Your task to perform on an android device: Open Google Chrome and click the shortcut for Amazon.com Image 0: 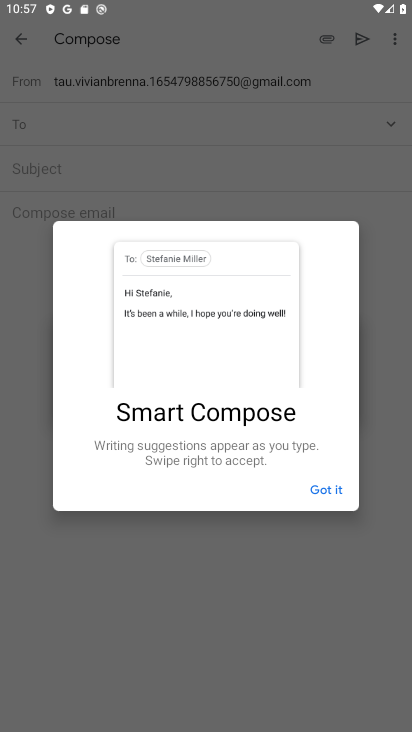
Step 0: press home button
Your task to perform on an android device: Open Google Chrome and click the shortcut for Amazon.com Image 1: 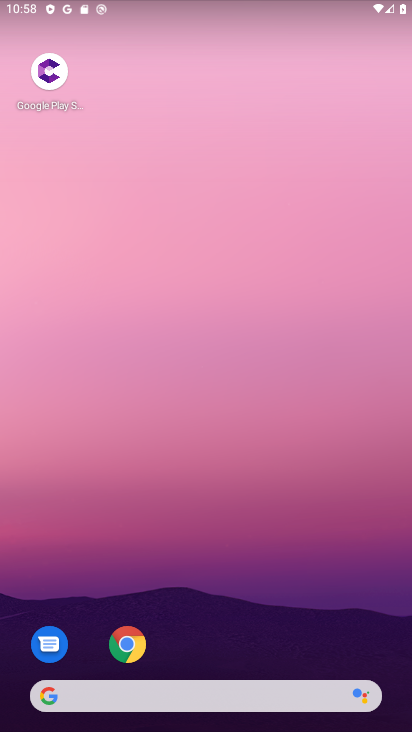
Step 1: drag from (261, 638) to (247, 221)
Your task to perform on an android device: Open Google Chrome and click the shortcut for Amazon.com Image 2: 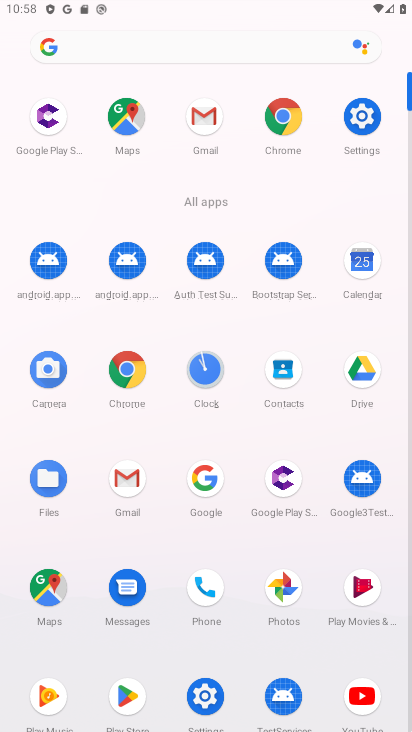
Step 2: click (282, 120)
Your task to perform on an android device: Open Google Chrome and click the shortcut for Amazon.com Image 3: 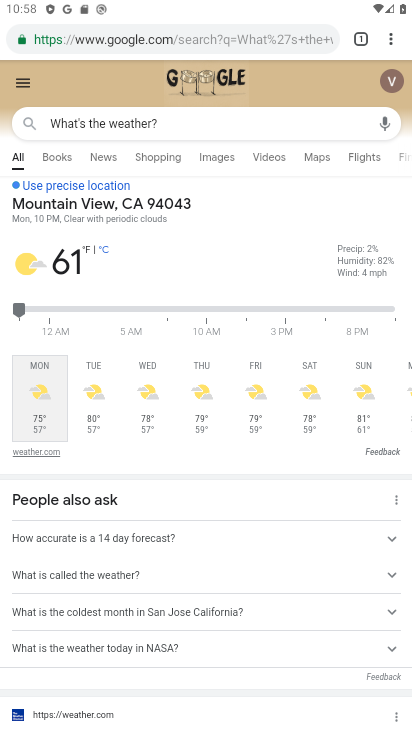
Step 3: click (359, 37)
Your task to perform on an android device: Open Google Chrome and click the shortcut for Amazon.com Image 4: 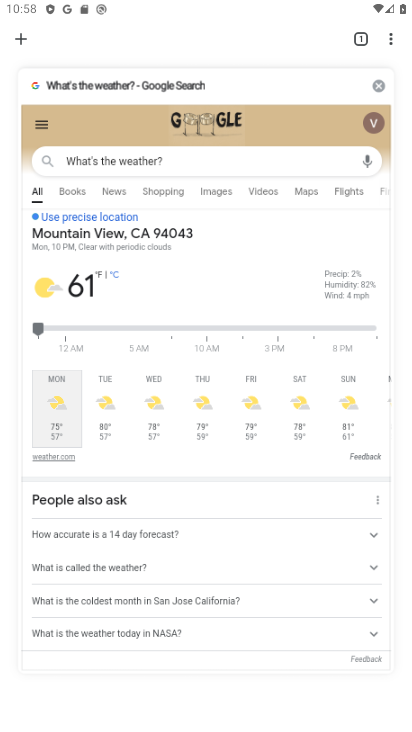
Step 4: click (22, 44)
Your task to perform on an android device: Open Google Chrome and click the shortcut for Amazon.com Image 5: 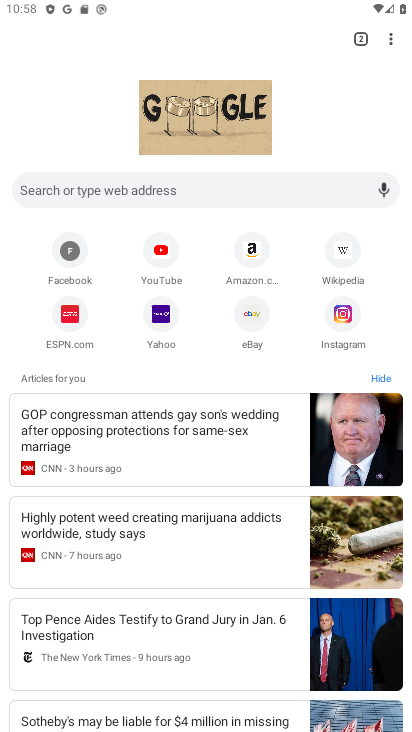
Step 5: click (256, 243)
Your task to perform on an android device: Open Google Chrome and click the shortcut for Amazon.com Image 6: 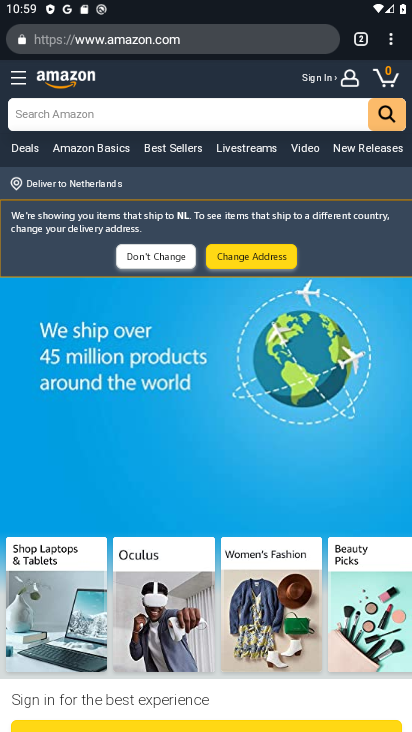
Step 6: task complete